Your task to perform on an android device: What's the weather? Image 0: 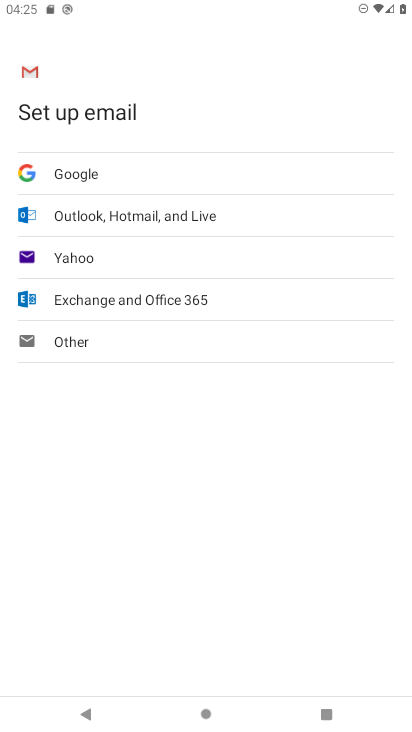
Step 0: press home button
Your task to perform on an android device: What's the weather? Image 1: 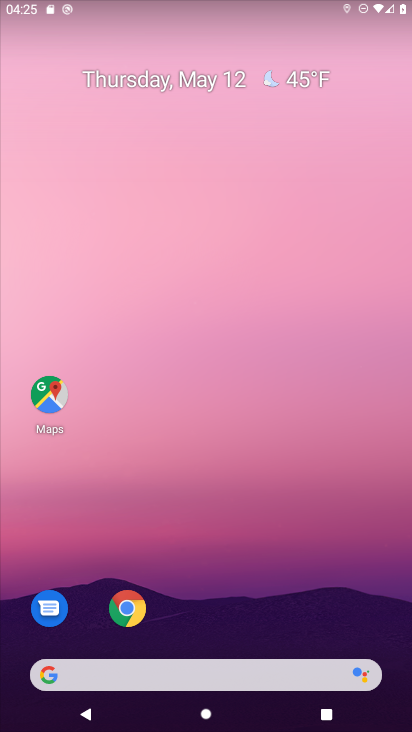
Step 1: click (267, 669)
Your task to perform on an android device: What's the weather? Image 2: 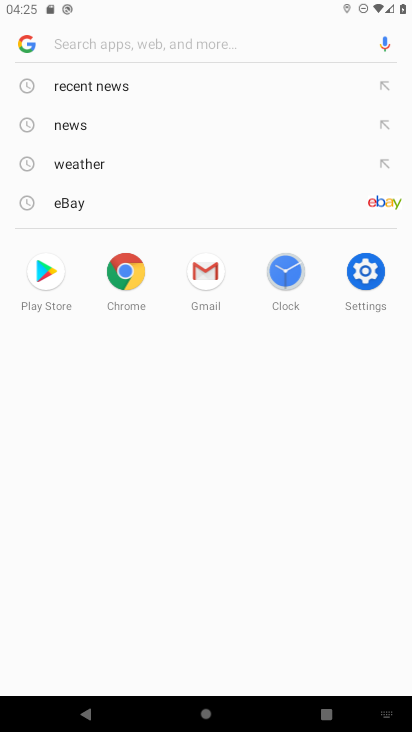
Step 2: click (97, 165)
Your task to perform on an android device: What's the weather? Image 3: 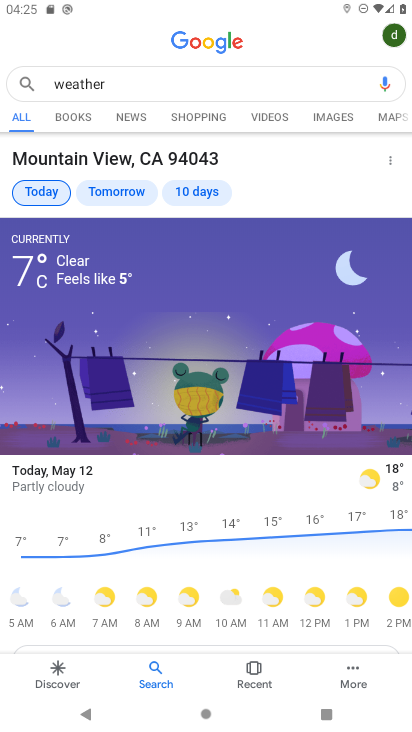
Step 3: task complete